Your task to perform on an android device: turn off picture-in-picture Image 0: 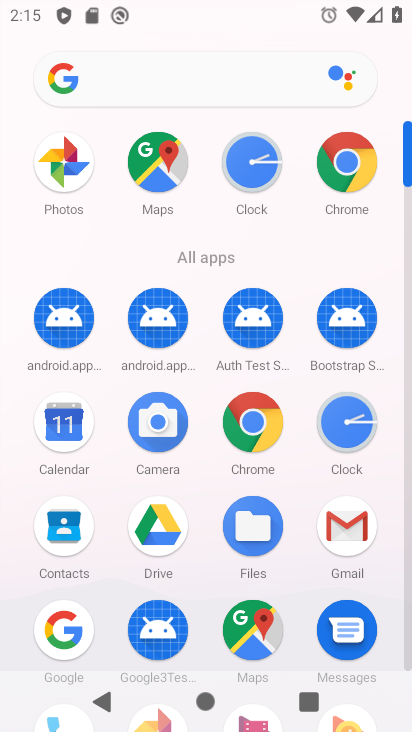
Step 0: press home button
Your task to perform on an android device: turn off picture-in-picture Image 1: 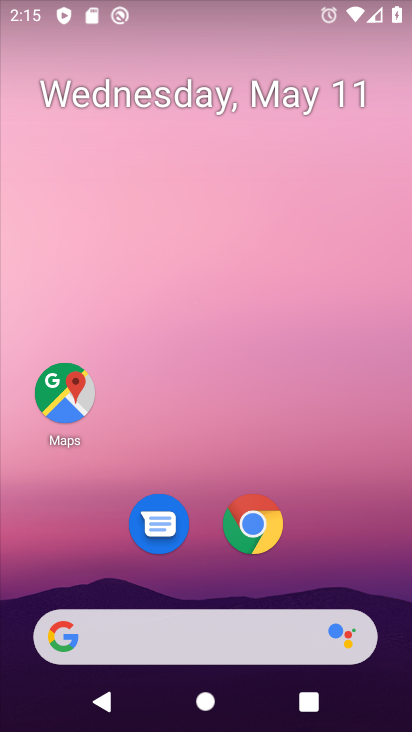
Step 1: click (248, 527)
Your task to perform on an android device: turn off picture-in-picture Image 2: 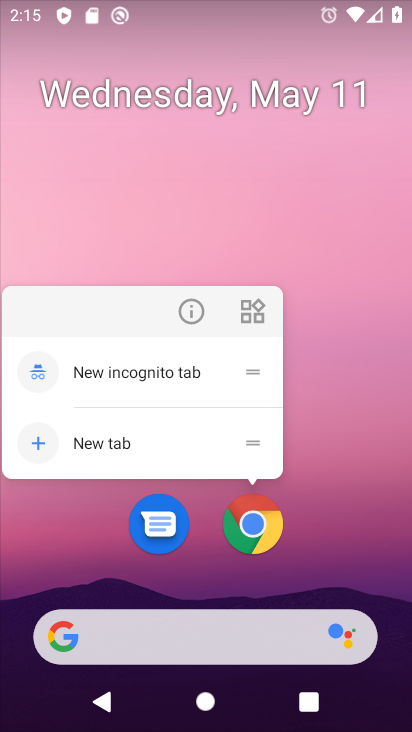
Step 2: click (196, 306)
Your task to perform on an android device: turn off picture-in-picture Image 3: 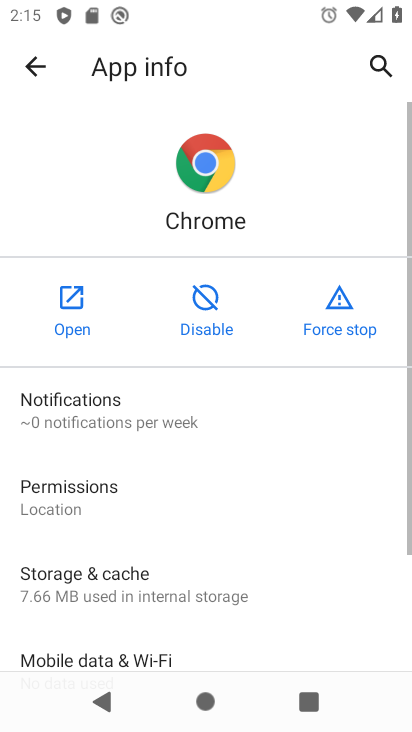
Step 3: drag from (244, 578) to (293, 257)
Your task to perform on an android device: turn off picture-in-picture Image 4: 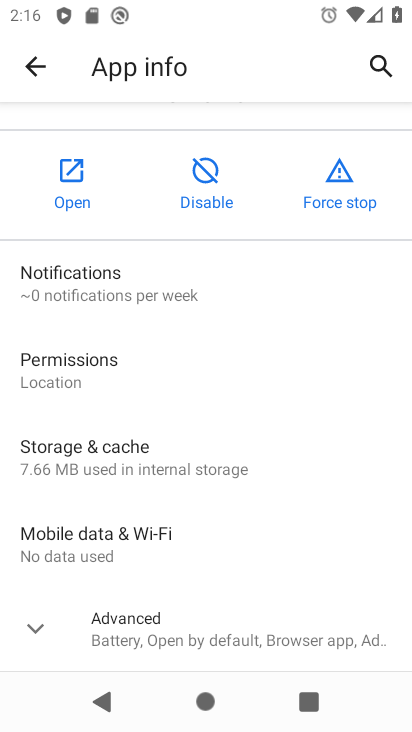
Step 4: click (38, 617)
Your task to perform on an android device: turn off picture-in-picture Image 5: 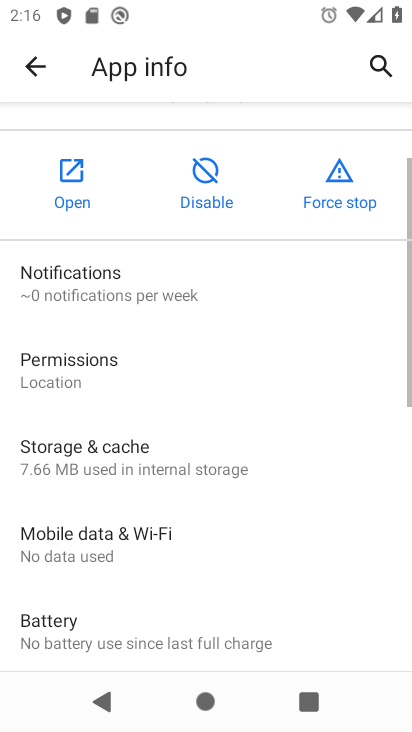
Step 5: drag from (236, 582) to (282, 229)
Your task to perform on an android device: turn off picture-in-picture Image 6: 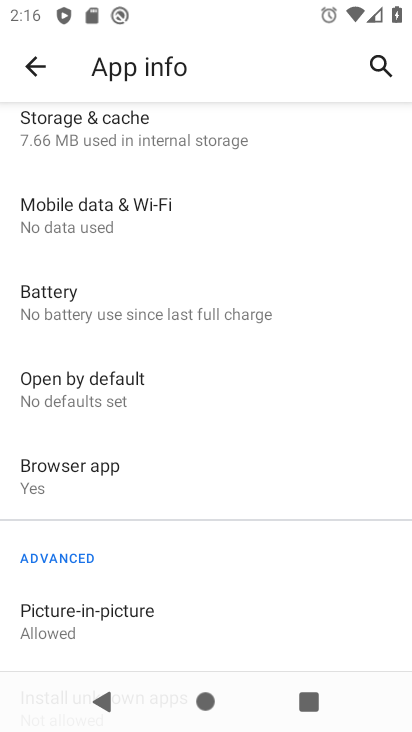
Step 6: click (123, 622)
Your task to perform on an android device: turn off picture-in-picture Image 7: 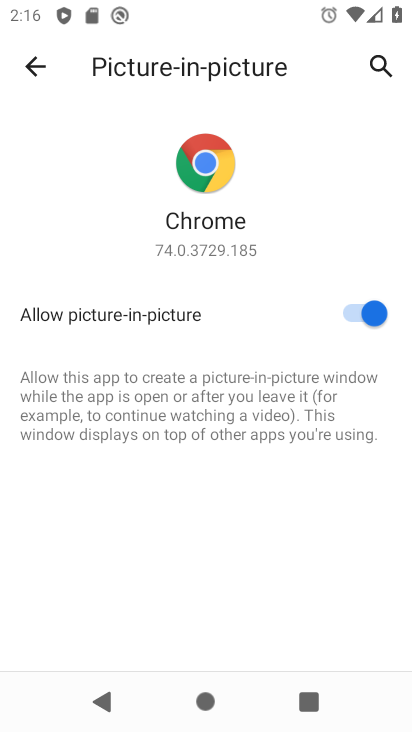
Step 7: click (355, 310)
Your task to perform on an android device: turn off picture-in-picture Image 8: 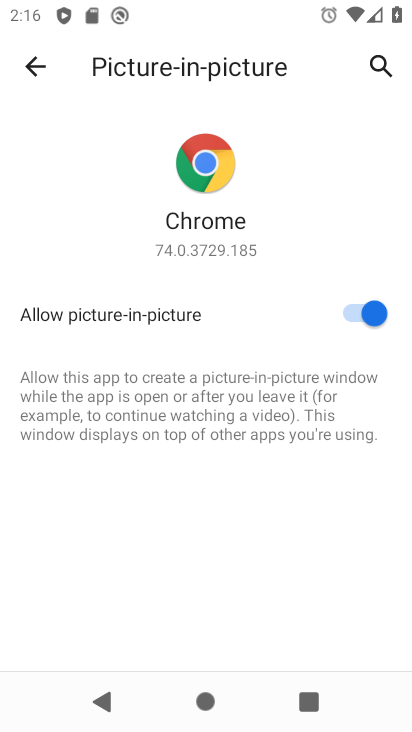
Step 8: click (370, 299)
Your task to perform on an android device: turn off picture-in-picture Image 9: 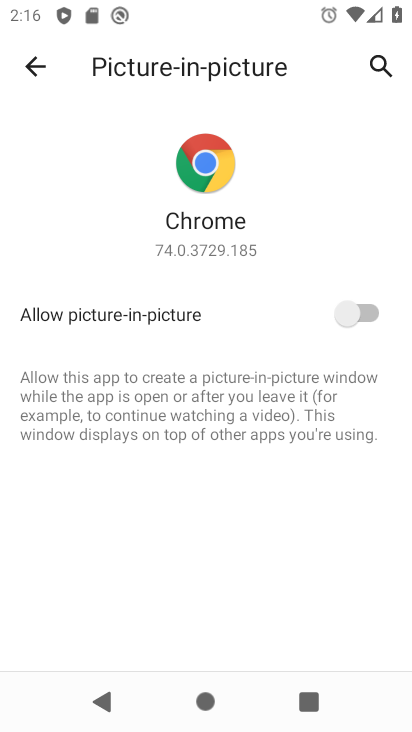
Step 9: task complete